Your task to perform on an android device: set the timer Image 0: 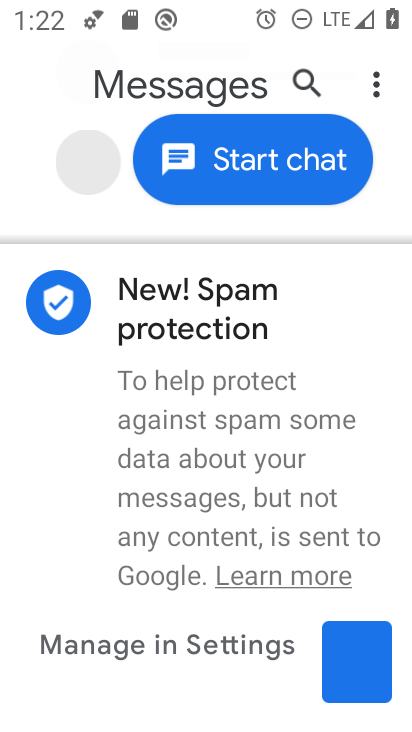
Step 0: press home button
Your task to perform on an android device: set the timer Image 1: 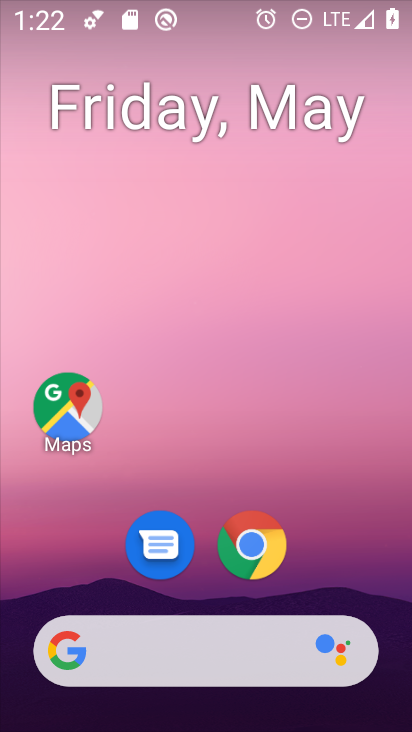
Step 1: drag from (328, 543) to (297, 276)
Your task to perform on an android device: set the timer Image 2: 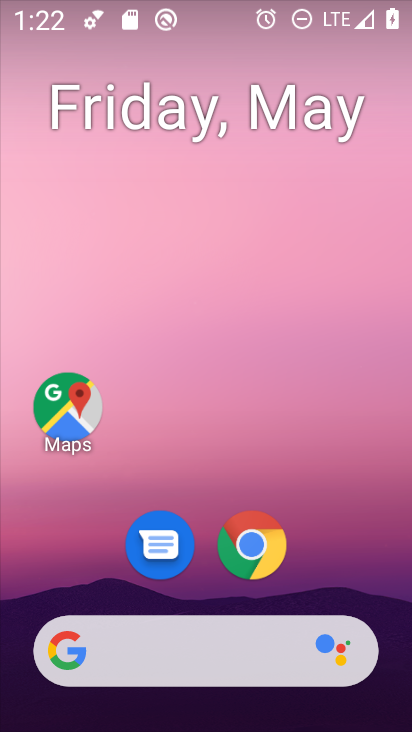
Step 2: drag from (320, 528) to (301, 168)
Your task to perform on an android device: set the timer Image 3: 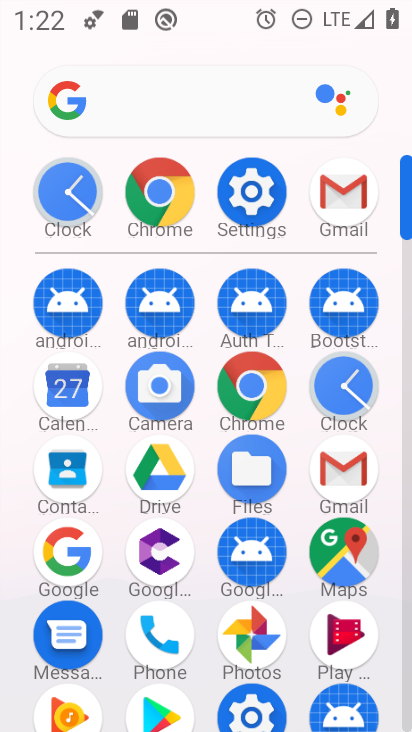
Step 3: click (355, 400)
Your task to perform on an android device: set the timer Image 4: 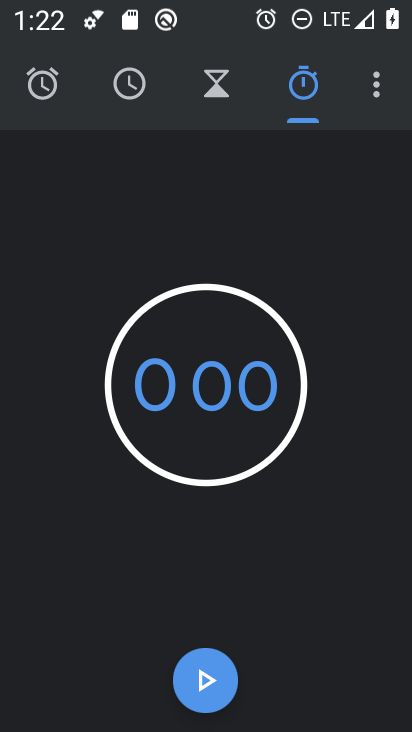
Step 4: drag from (56, 77) to (299, 168)
Your task to perform on an android device: set the timer Image 5: 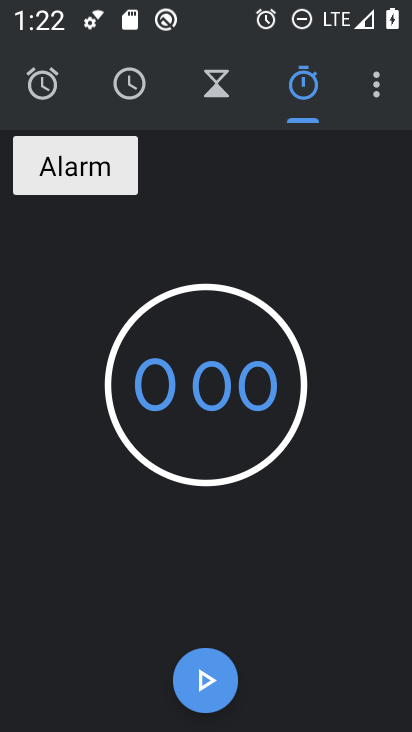
Step 5: click (195, 80)
Your task to perform on an android device: set the timer Image 6: 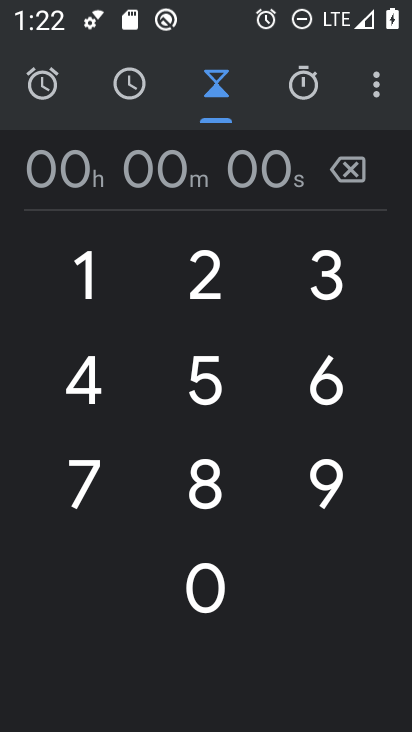
Step 6: click (154, 171)
Your task to perform on an android device: set the timer Image 7: 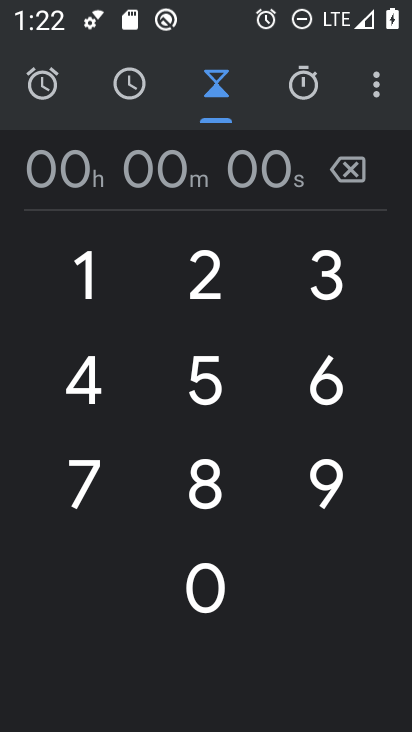
Step 7: type "909009"
Your task to perform on an android device: set the timer Image 8: 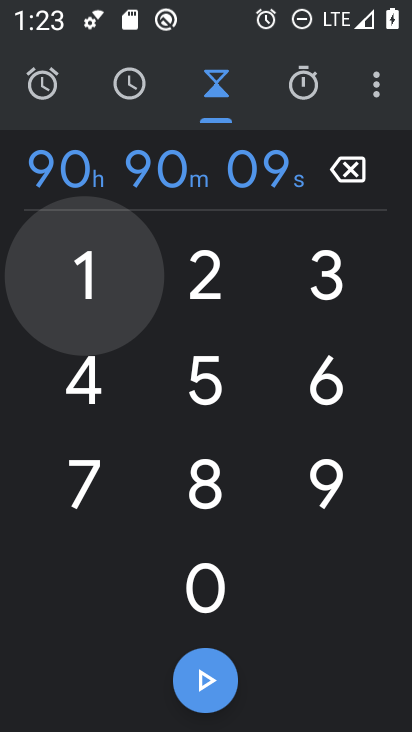
Step 8: task complete